Your task to perform on an android device: Go to Google maps Image 0: 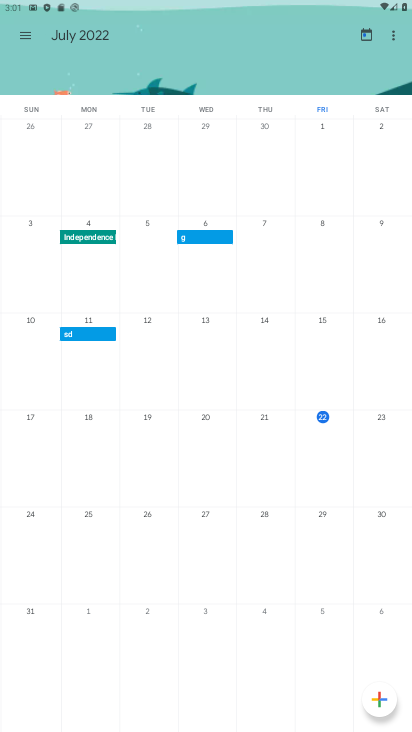
Step 0: press home button
Your task to perform on an android device: Go to Google maps Image 1: 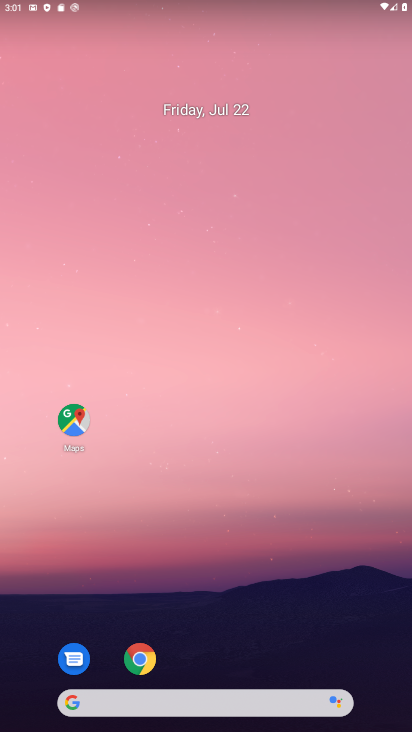
Step 1: click (62, 436)
Your task to perform on an android device: Go to Google maps Image 2: 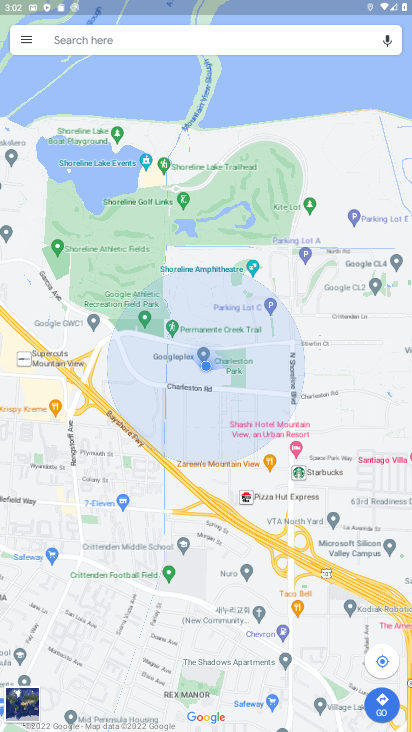
Step 2: task complete